Your task to perform on an android device: create a new album in the google photos Image 0: 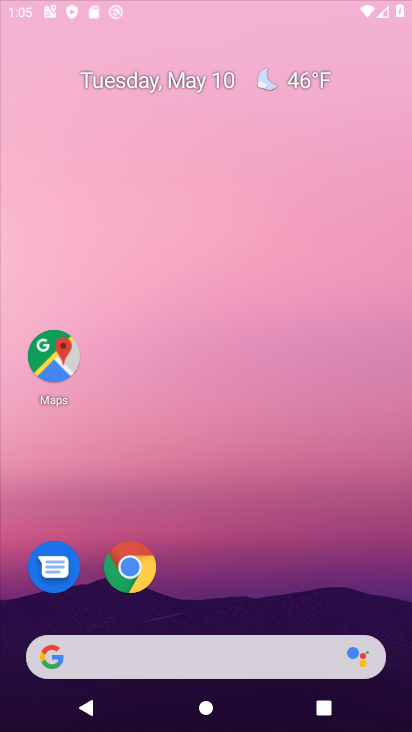
Step 0: click (128, 573)
Your task to perform on an android device: create a new album in the google photos Image 1: 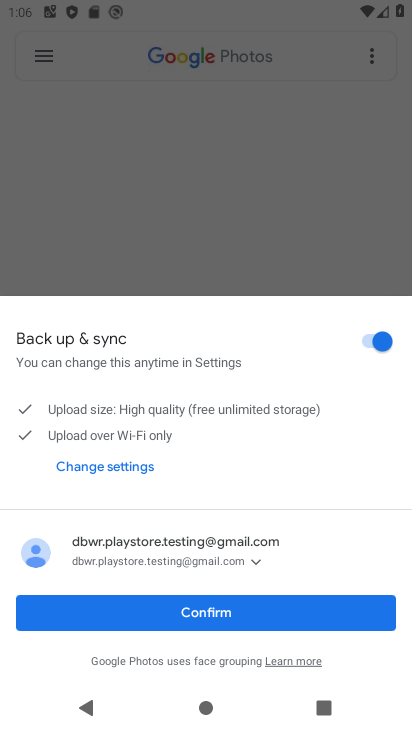
Step 1: click (295, 618)
Your task to perform on an android device: create a new album in the google photos Image 2: 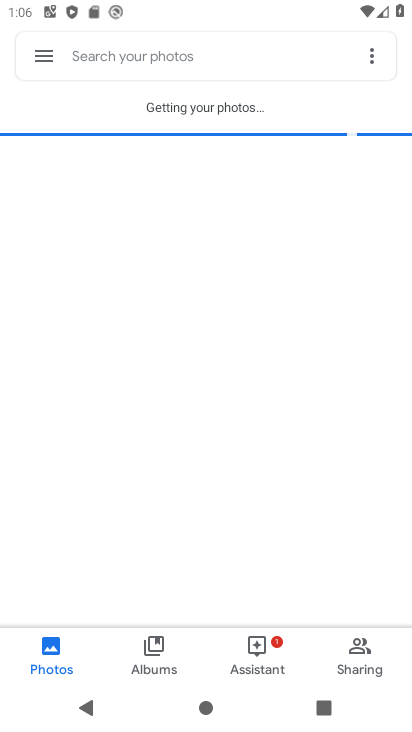
Step 2: click (158, 642)
Your task to perform on an android device: create a new album in the google photos Image 3: 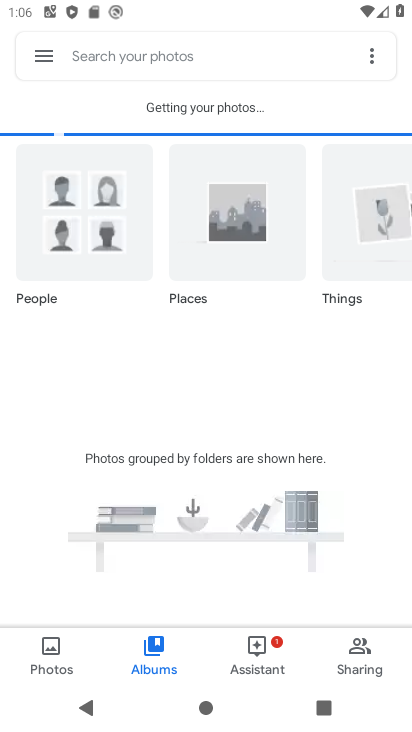
Step 3: click (372, 58)
Your task to perform on an android device: create a new album in the google photos Image 4: 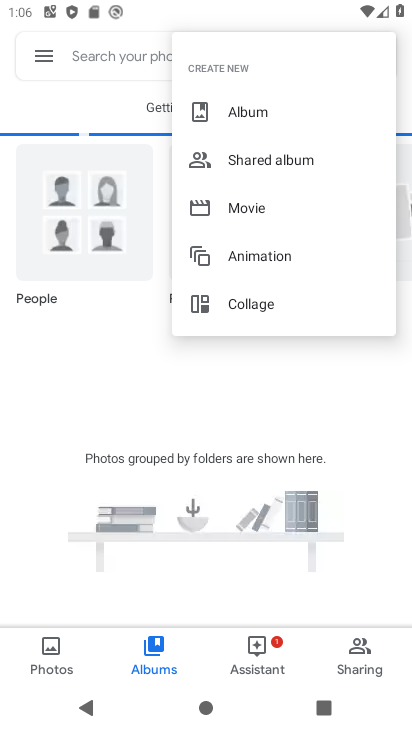
Step 4: click (242, 113)
Your task to perform on an android device: create a new album in the google photos Image 5: 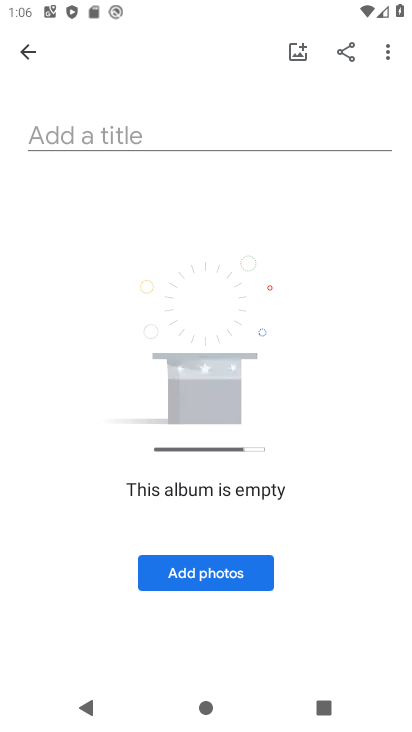
Step 5: click (215, 136)
Your task to perform on an android device: create a new album in the google photos Image 6: 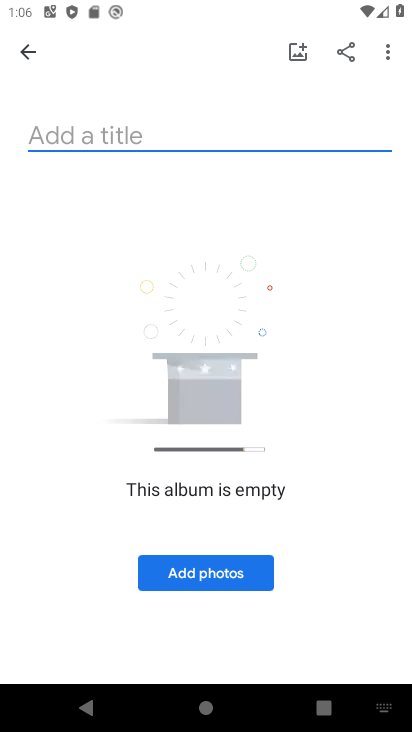
Step 6: type "rdfg"
Your task to perform on an android device: create a new album in the google photos Image 7: 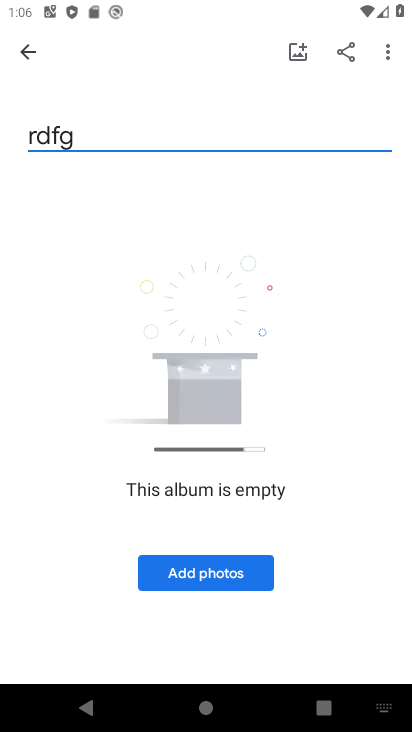
Step 7: click (305, 54)
Your task to perform on an android device: create a new album in the google photos Image 8: 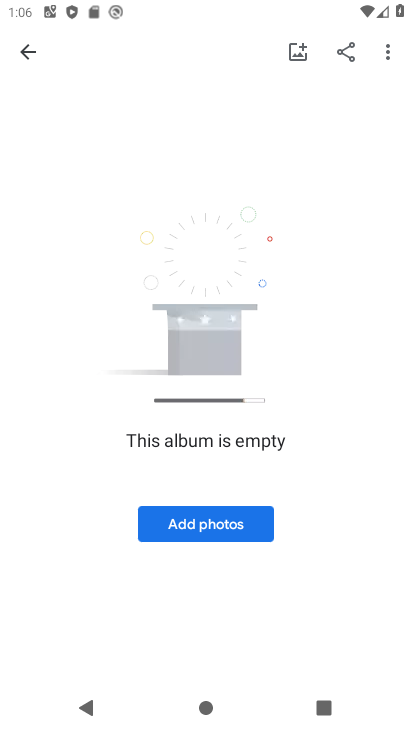
Step 8: click (201, 529)
Your task to perform on an android device: create a new album in the google photos Image 9: 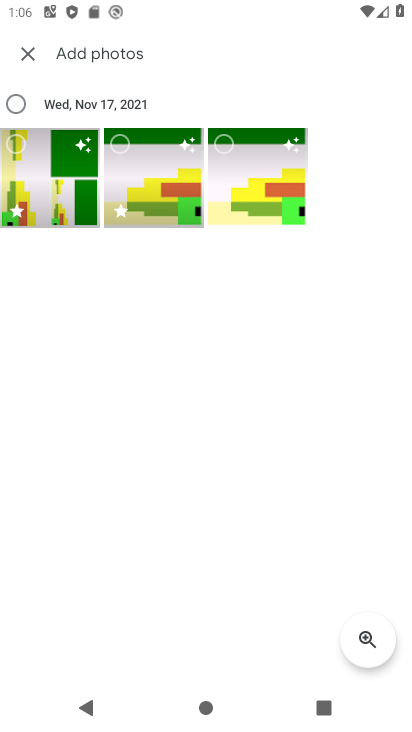
Step 9: click (42, 159)
Your task to perform on an android device: create a new album in the google photos Image 10: 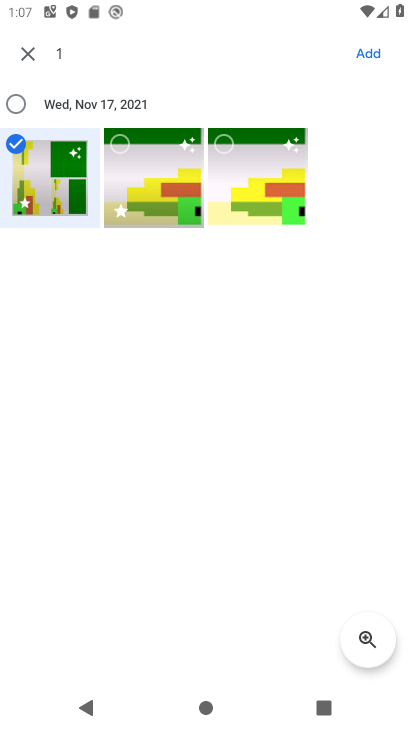
Step 10: click (370, 60)
Your task to perform on an android device: create a new album in the google photos Image 11: 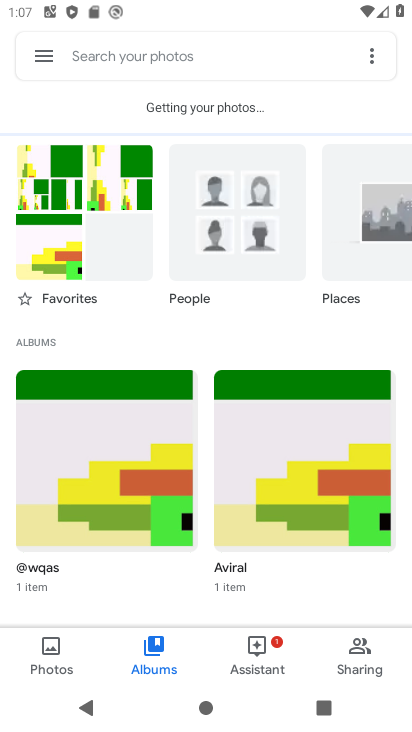
Step 11: click (372, 63)
Your task to perform on an android device: create a new album in the google photos Image 12: 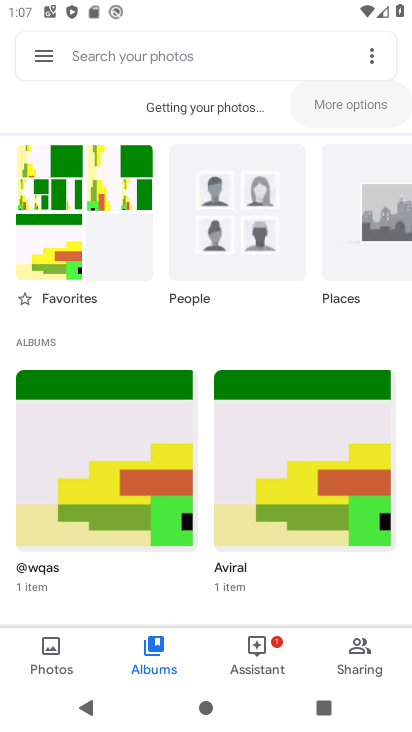
Step 12: click (369, 57)
Your task to perform on an android device: create a new album in the google photos Image 13: 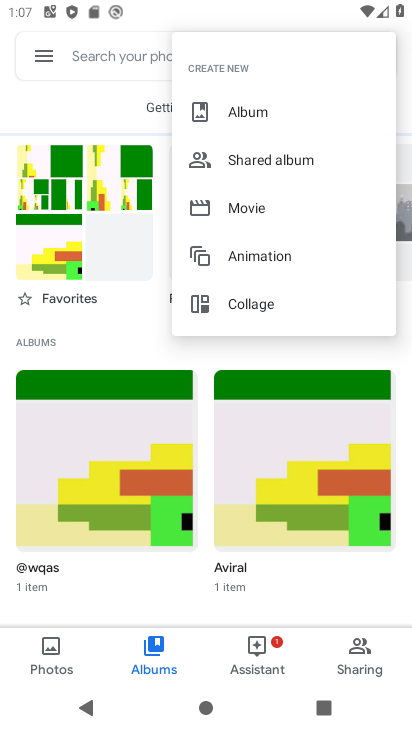
Step 13: click (289, 113)
Your task to perform on an android device: create a new album in the google photos Image 14: 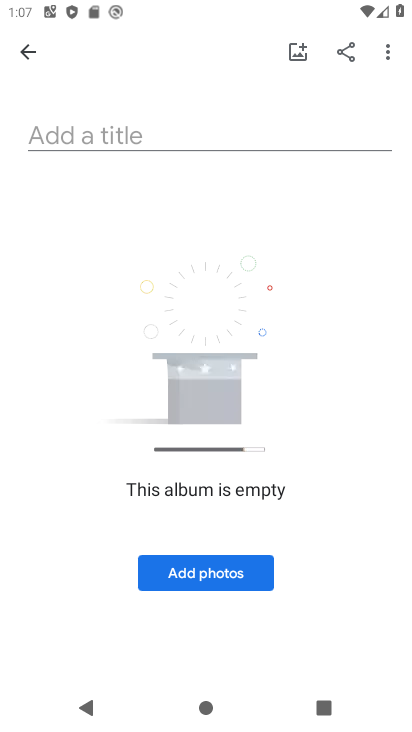
Step 14: click (169, 123)
Your task to perform on an android device: create a new album in the google photos Image 15: 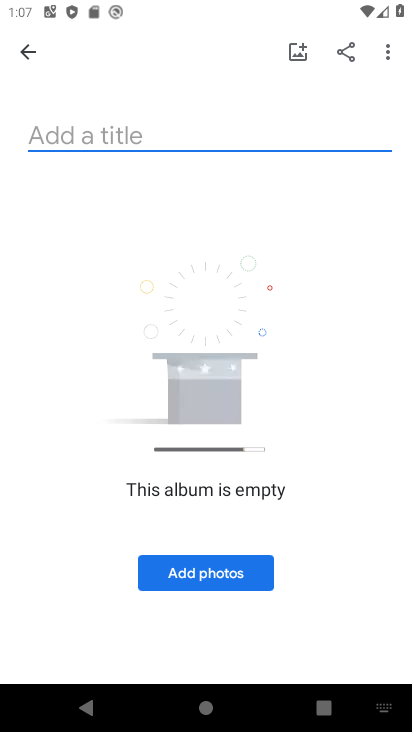
Step 15: type "vfgtuy"
Your task to perform on an android device: create a new album in the google photos Image 16: 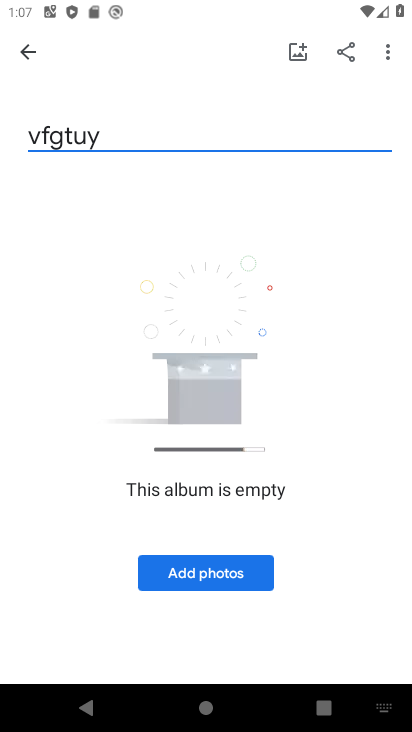
Step 16: click (175, 578)
Your task to perform on an android device: create a new album in the google photos Image 17: 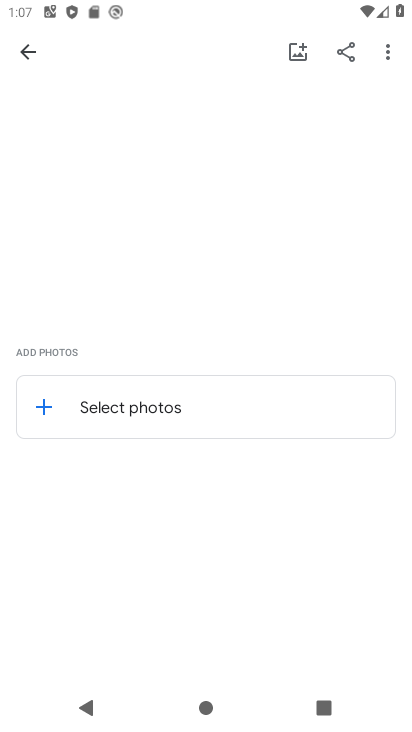
Step 17: click (115, 405)
Your task to perform on an android device: create a new album in the google photos Image 18: 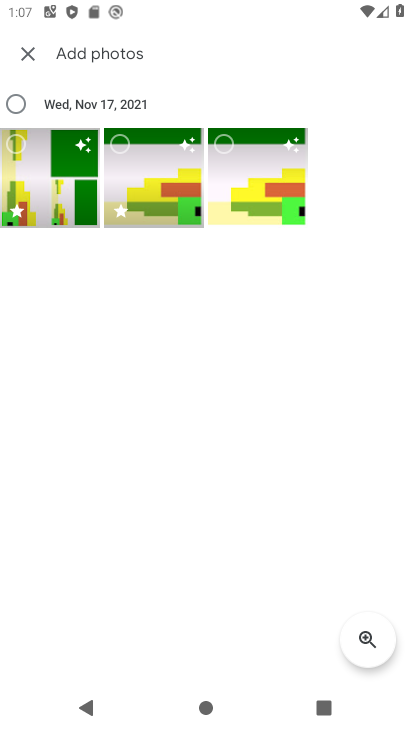
Step 18: click (40, 185)
Your task to perform on an android device: create a new album in the google photos Image 19: 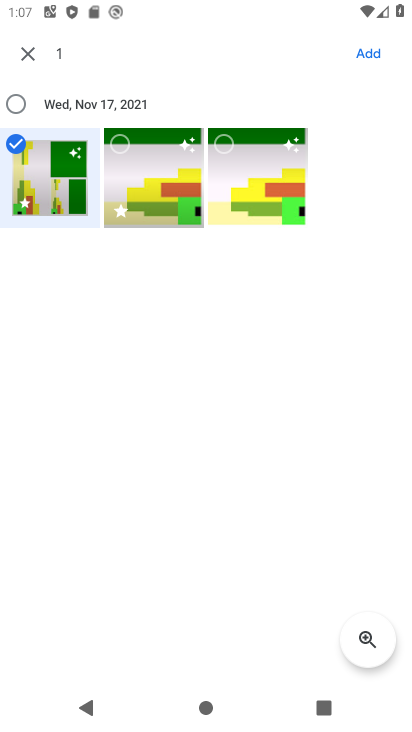
Step 19: click (369, 60)
Your task to perform on an android device: create a new album in the google photos Image 20: 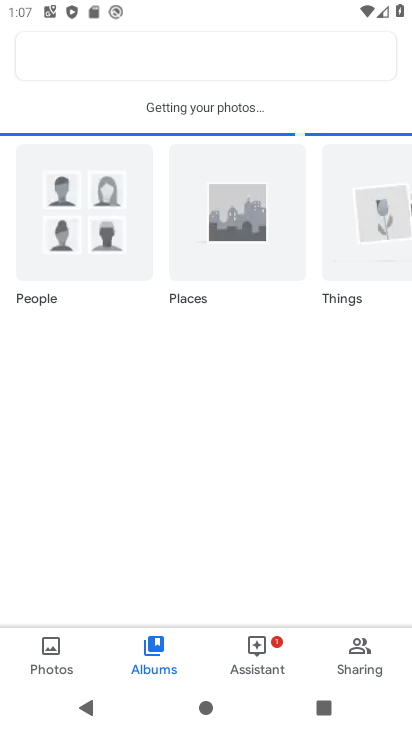
Step 20: task complete